Your task to perform on an android device: What's on my calendar today? Image 0: 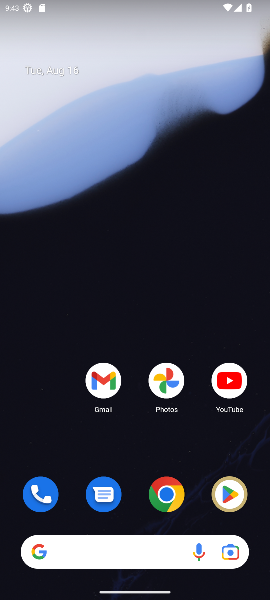
Step 0: press home button
Your task to perform on an android device: What's on my calendar today? Image 1: 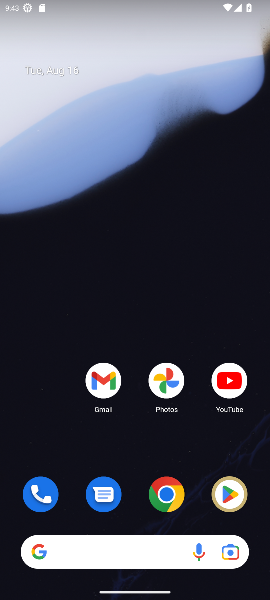
Step 1: press home button
Your task to perform on an android device: What's on my calendar today? Image 2: 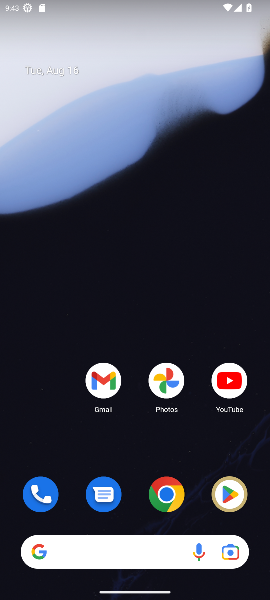
Step 2: press home button
Your task to perform on an android device: What's on my calendar today? Image 3: 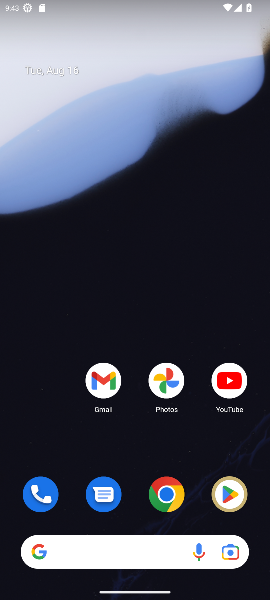
Step 3: drag from (165, 452) to (128, 206)
Your task to perform on an android device: What's on my calendar today? Image 4: 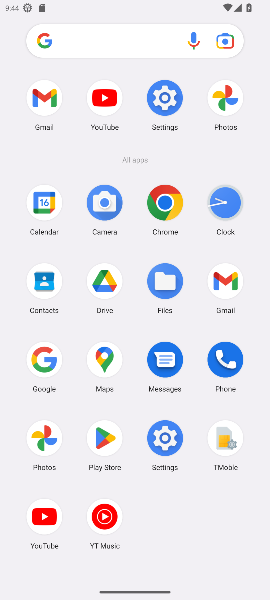
Step 4: click (45, 197)
Your task to perform on an android device: What's on my calendar today? Image 5: 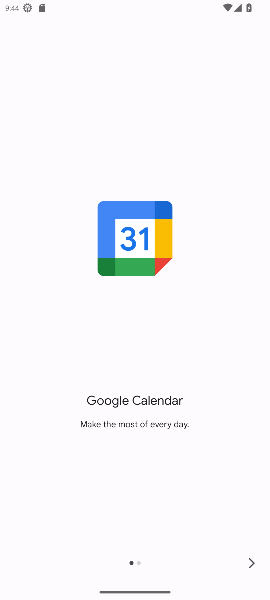
Step 5: click (251, 560)
Your task to perform on an android device: What's on my calendar today? Image 6: 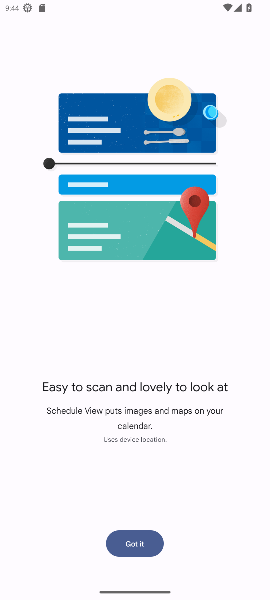
Step 6: click (132, 541)
Your task to perform on an android device: What's on my calendar today? Image 7: 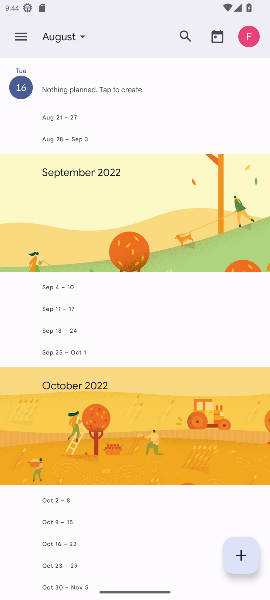
Step 7: click (69, 40)
Your task to perform on an android device: What's on my calendar today? Image 8: 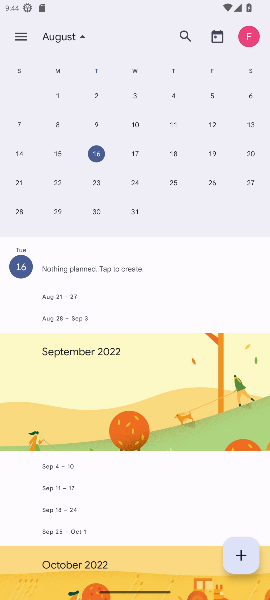
Step 8: click (96, 147)
Your task to perform on an android device: What's on my calendar today? Image 9: 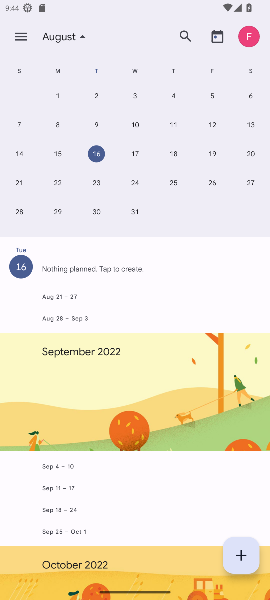
Step 9: task complete